Your task to perform on an android device: turn on data saver in the chrome app Image 0: 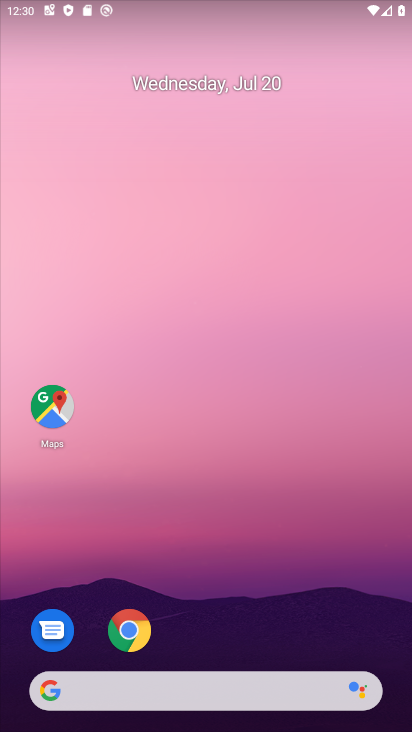
Step 0: press home button
Your task to perform on an android device: turn on data saver in the chrome app Image 1: 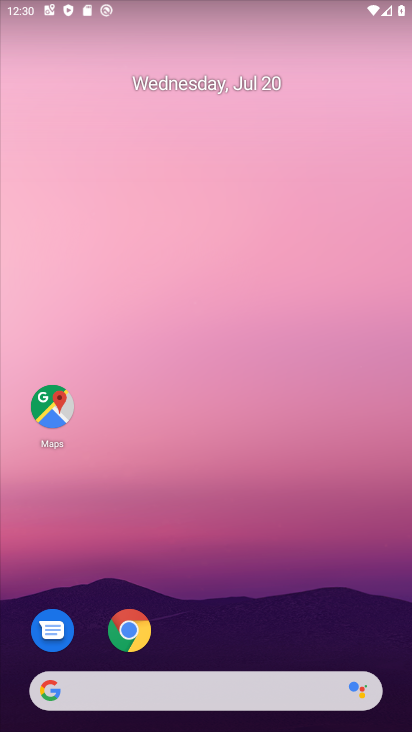
Step 1: click (137, 623)
Your task to perform on an android device: turn on data saver in the chrome app Image 2: 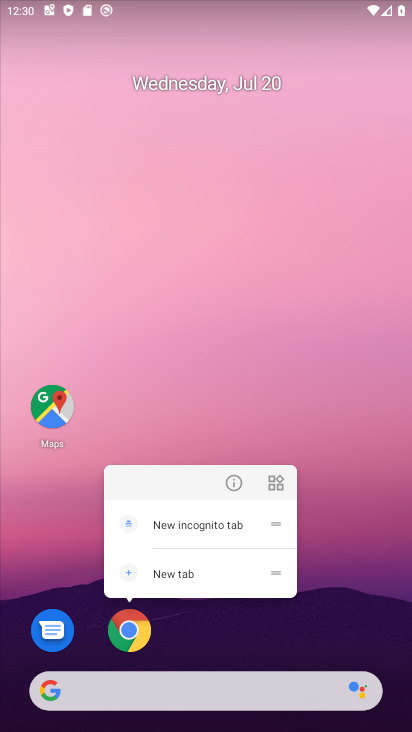
Step 2: click (128, 621)
Your task to perform on an android device: turn on data saver in the chrome app Image 3: 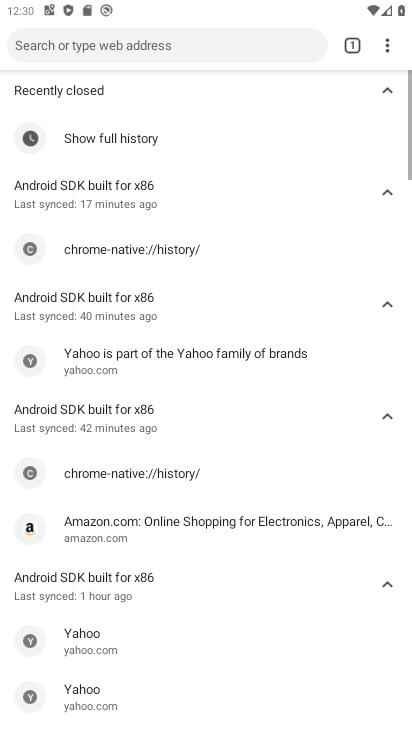
Step 3: drag from (384, 38) to (211, 384)
Your task to perform on an android device: turn on data saver in the chrome app Image 4: 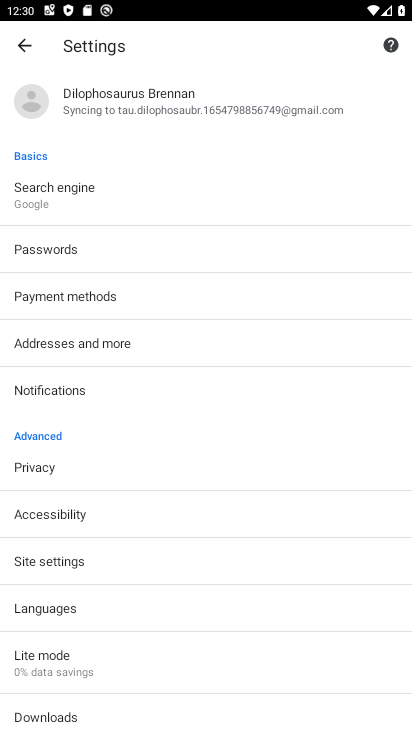
Step 4: click (37, 658)
Your task to perform on an android device: turn on data saver in the chrome app Image 5: 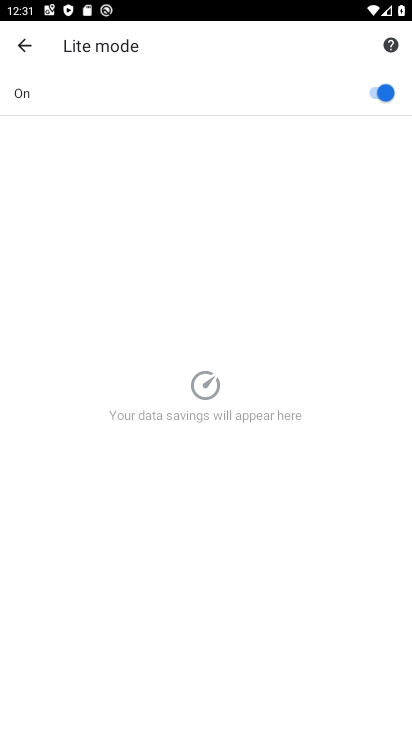
Step 5: task complete